Your task to perform on an android device: choose inbox layout in the gmail app Image 0: 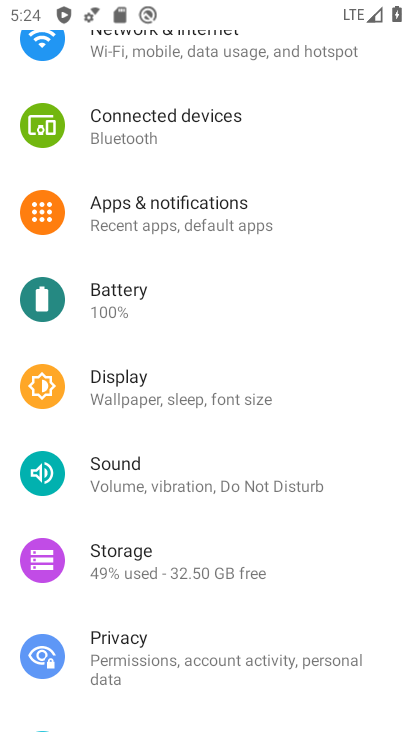
Step 0: press home button
Your task to perform on an android device: choose inbox layout in the gmail app Image 1: 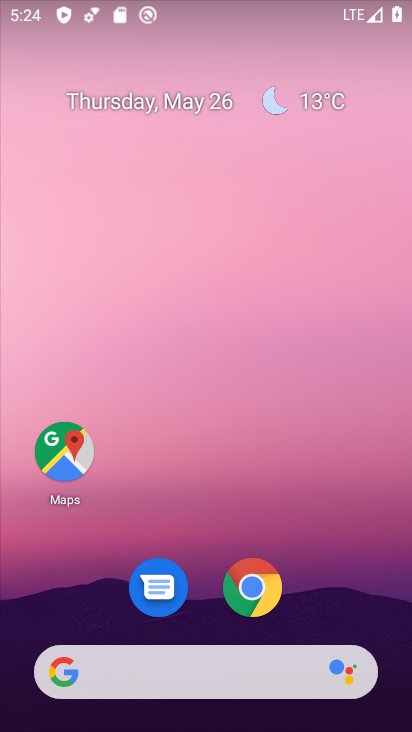
Step 1: drag from (209, 689) to (205, 104)
Your task to perform on an android device: choose inbox layout in the gmail app Image 2: 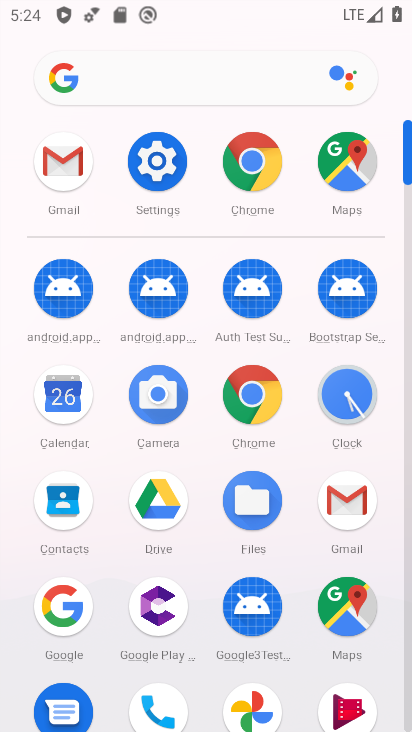
Step 2: click (352, 524)
Your task to perform on an android device: choose inbox layout in the gmail app Image 3: 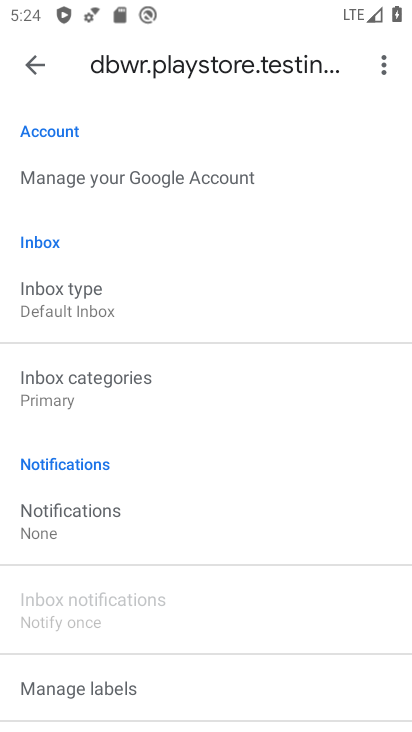
Step 3: click (57, 309)
Your task to perform on an android device: choose inbox layout in the gmail app Image 4: 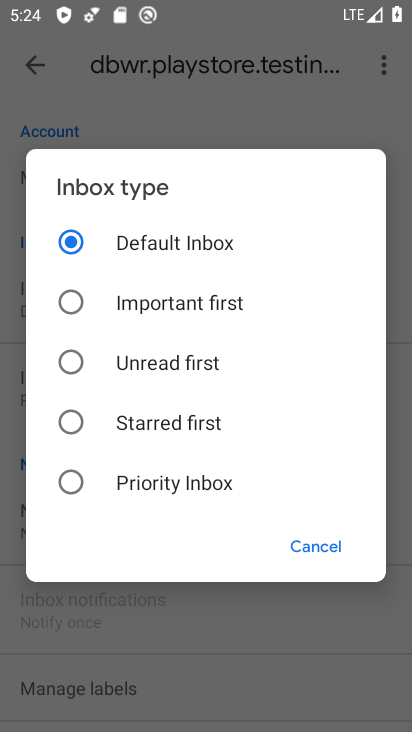
Step 4: click (70, 481)
Your task to perform on an android device: choose inbox layout in the gmail app Image 5: 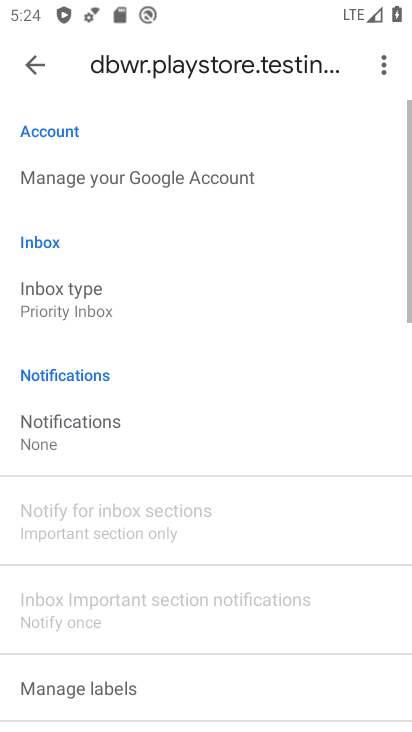
Step 5: task complete